Your task to perform on an android device: Is it going to rain today? Image 0: 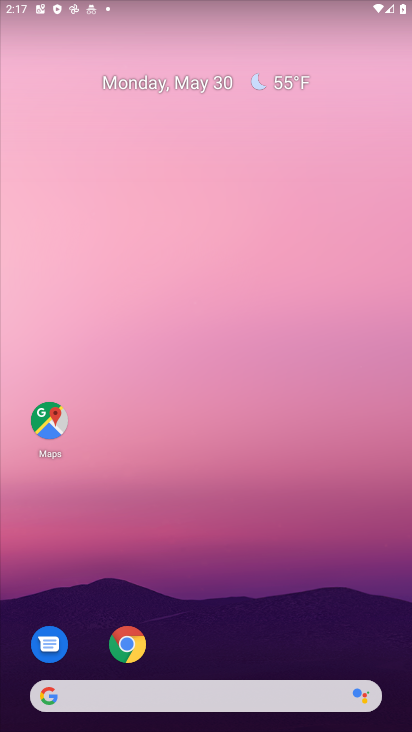
Step 0: drag from (348, 629) to (373, 260)
Your task to perform on an android device: Is it going to rain today? Image 1: 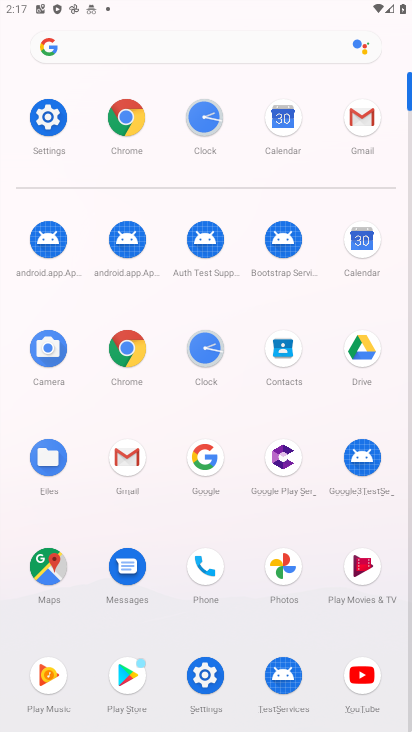
Step 1: click (222, 41)
Your task to perform on an android device: Is it going to rain today? Image 2: 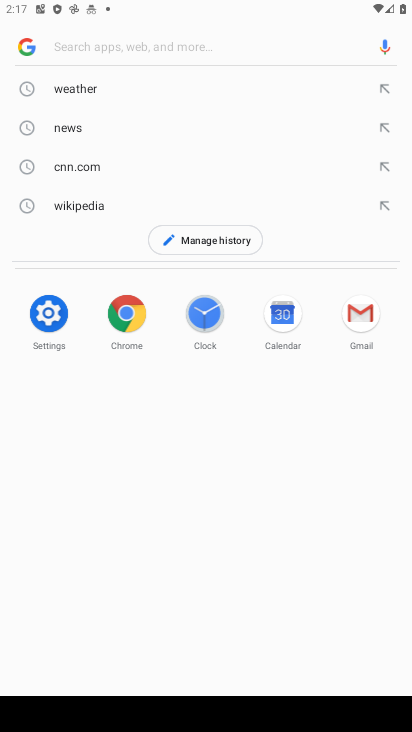
Step 2: click (212, 92)
Your task to perform on an android device: Is it going to rain today? Image 3: 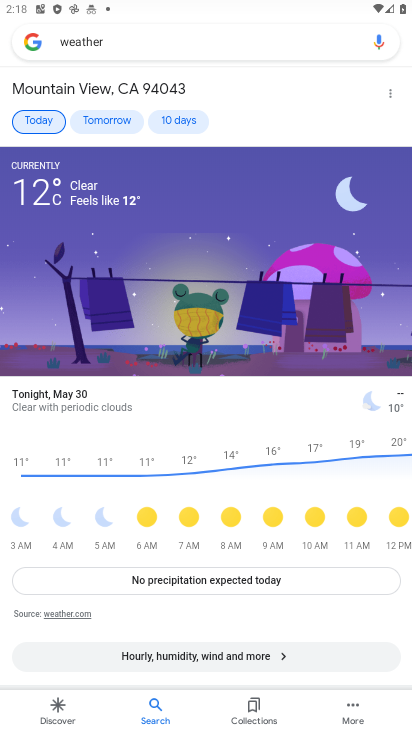
Step 3: task complete